Your task to perform on an android device: View the shopping cart on target. Add jbl flip 4 to the cart on target, then select checkout. Image 0: 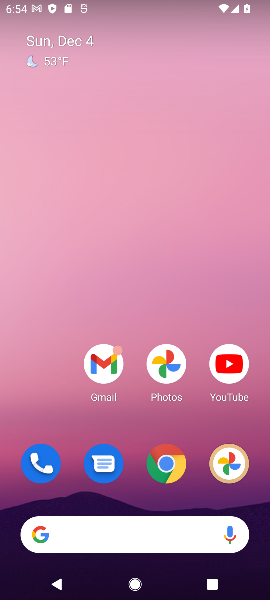
Step 0: click (182, 521)
Your task to perform on an android device: View the shopping cart on target. Add jbl flip 4 to the cart on target, then select checkout. Image 1: 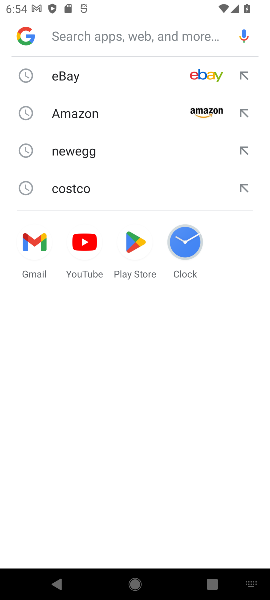
Step 1: type "target"
Your task to perform on an android device: View the shopping cart on target. Add jbl flip 4 to the cart on target, then select checkout. Image 2: 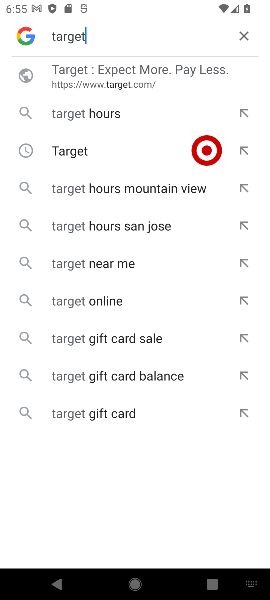
Step 2: click (186, 60)
Your task to perform on an android device: View the shopping cart on target. Add jbl flip 4 to the cart on target, then select checkout. Image 3: 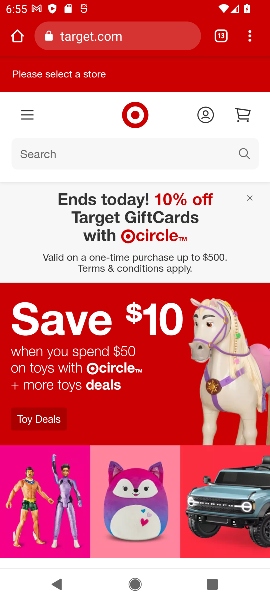
Step 3: task complete